Your task to perform on an android device: Open Google Chrome Image 0: 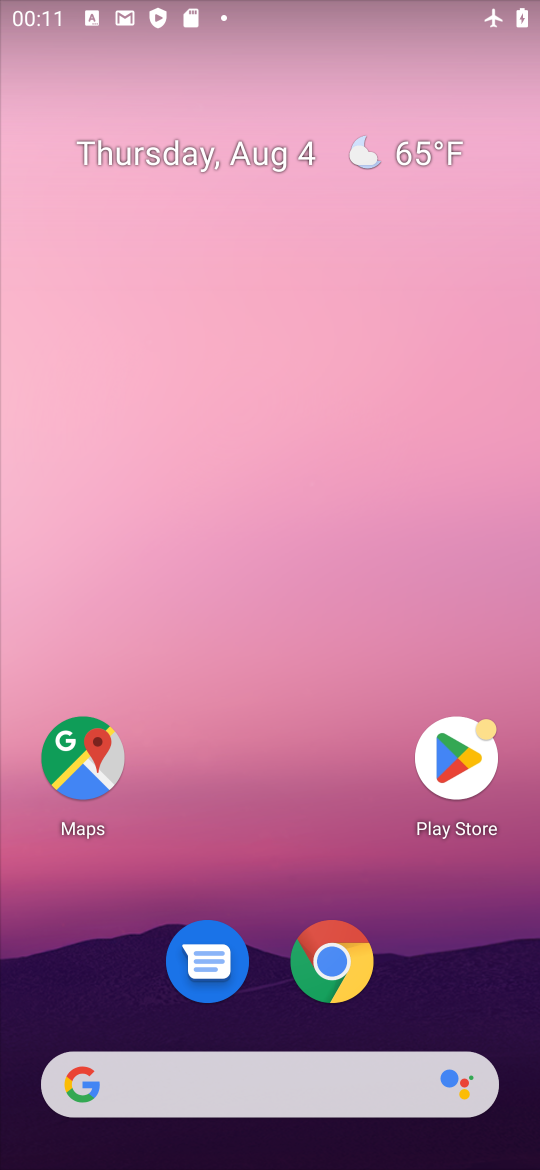
Step 0: click (333, 956)
Your task to perform on an android device: Open Google Chrome Image 1: 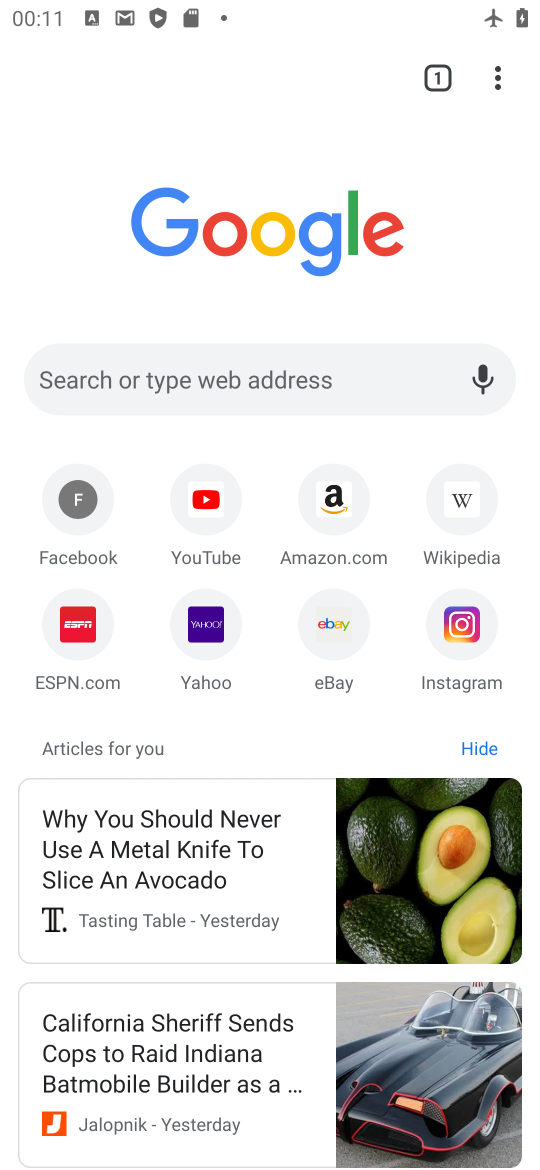
Step 1: task complete